Your task to perform on an android device: remove spam from my inbox in the gmail app Image 0: 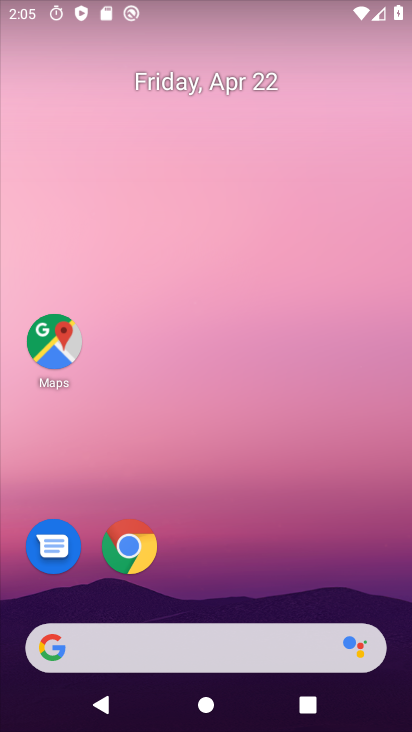
Step 0: click (298, 98)
Your task to perform on an android device: remove spam from my inbox in the gmail app Image 1: 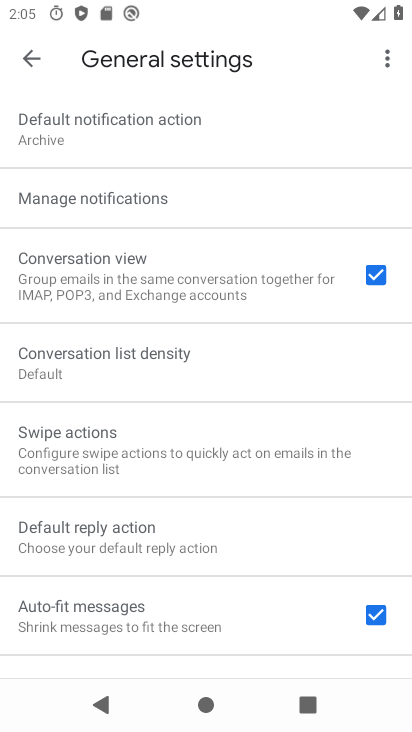
Step 1: click (33, 49)
Your task to perform on an android device: remove spam from my inbox in the gmail app Image 2: 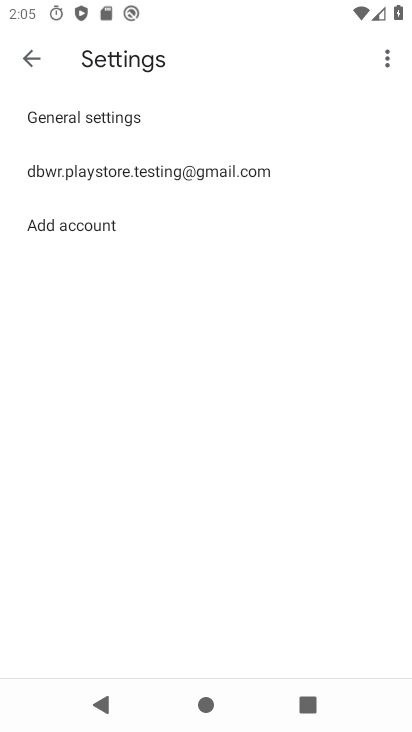
Step 2: click (31, 49)
Your task to perform on an android device: remove spam from my inbox in the gmail app Image 3: 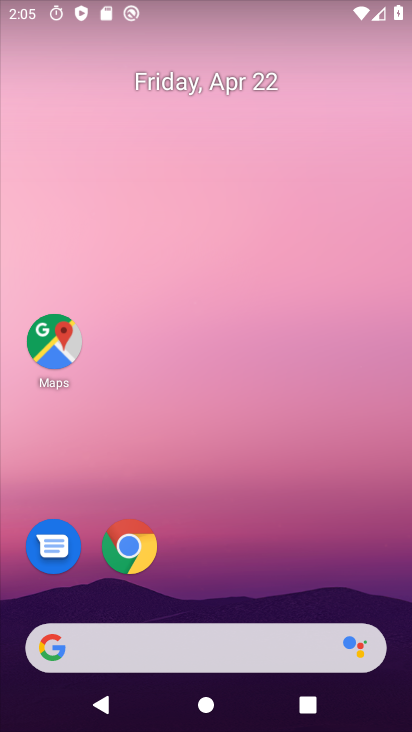
Step 3: drag from (191, 562) to (223, 51)
Your task to perform on an android device: remove spam from my inbox in the gmail app Image 4: 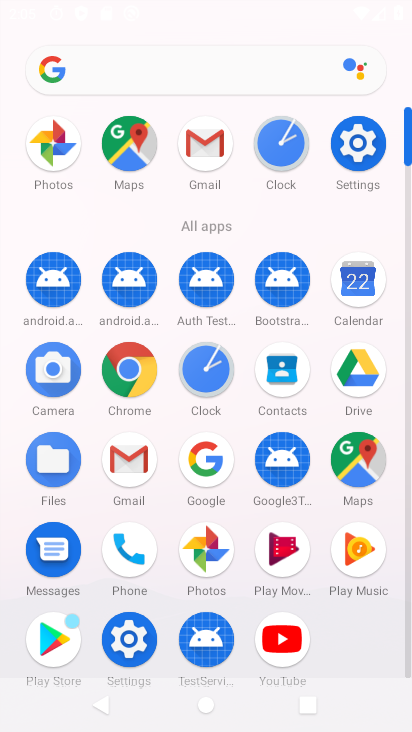
Step 4: click (120, 459)
Your task to perform on an android device: remove spam from my inbox in the gmail app Image 5: 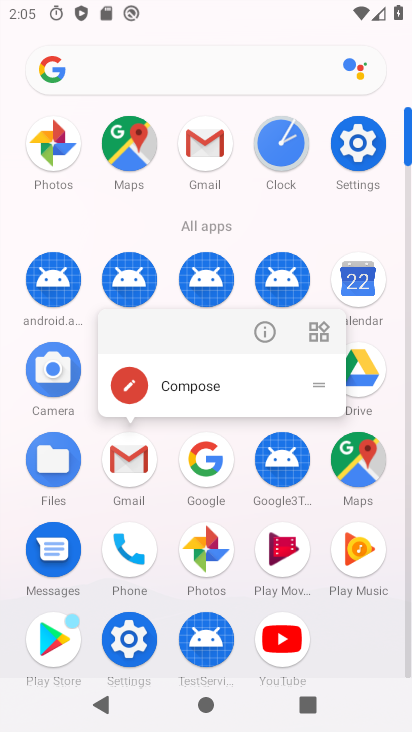
Step 5: click (257, 325)
Your task to perform on an android device: remove spam from my inbox in the gmail app Image 6: 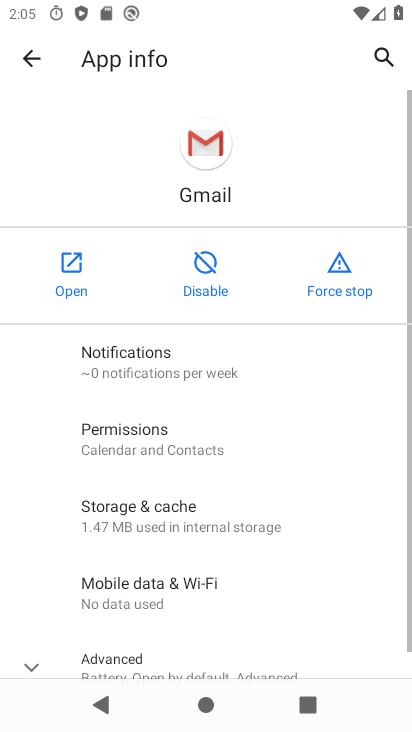
Step 6: click (69, 266)
Your task to perform on an android device: remove spam from my inbox in the gmail app Image 7: 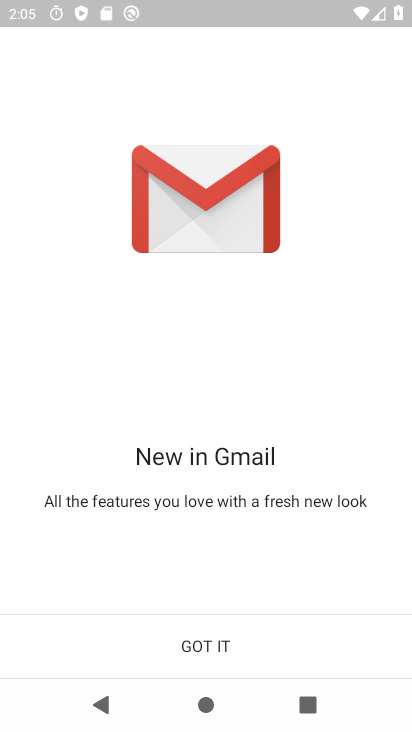
Step 7: click (203, 651)
Your task to perform on an android device: remove spam from my inbox in the gmail app Image 8: 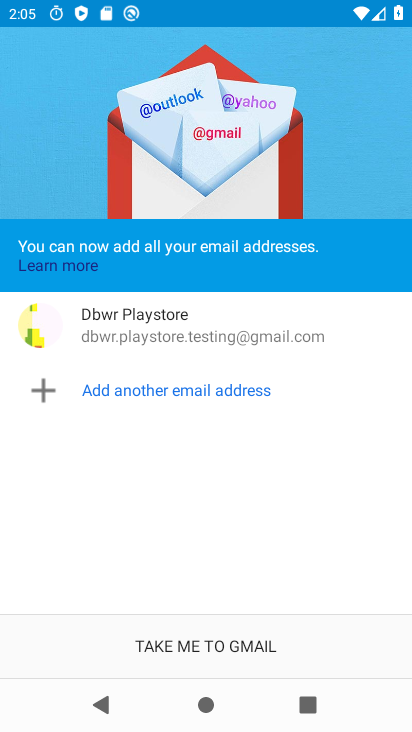
Step 8: click (190, 640)
Your task to perform on an android device: remove spam from my inbox in the gmail app Image 9: 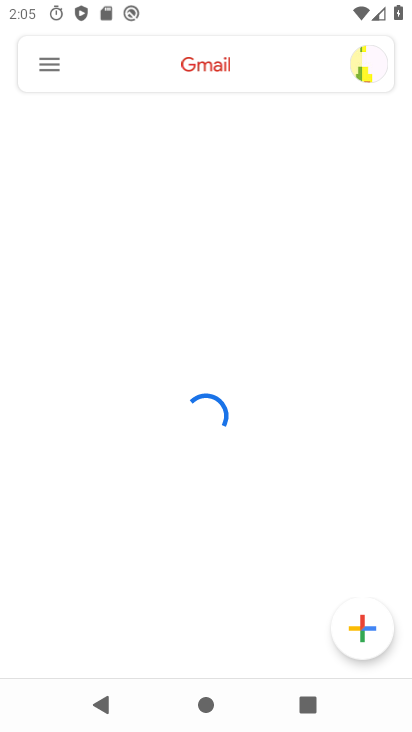
Step 9: click (31, 67)
Your task to perform on an android device: remove spam from my inbox in the gmail app Image 10: 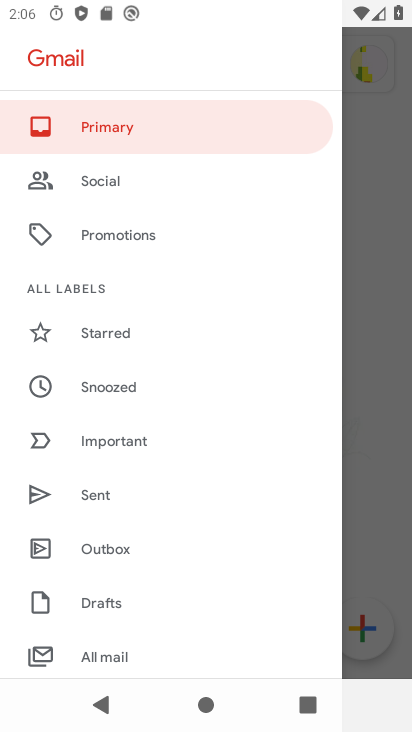
Step 10: drag from (143, 635) to (189, 336)
Your task to perform on an android device: remove spam from my inbox in the gmail app Image 11: 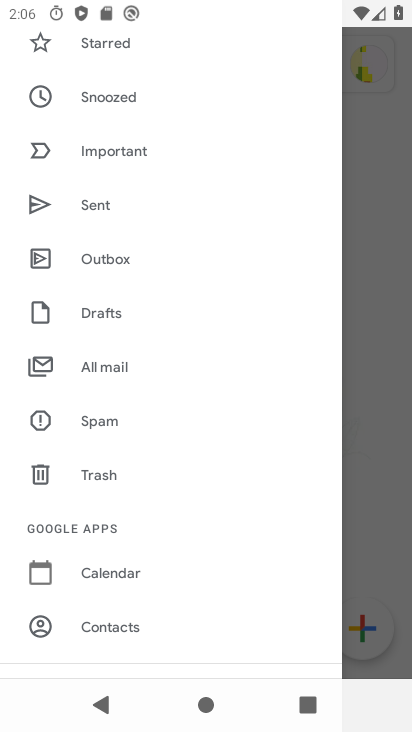
Step 11: click (119, 417)
Your task to perform on an android device: remove spam from my inbox in the gmail app Image 12: 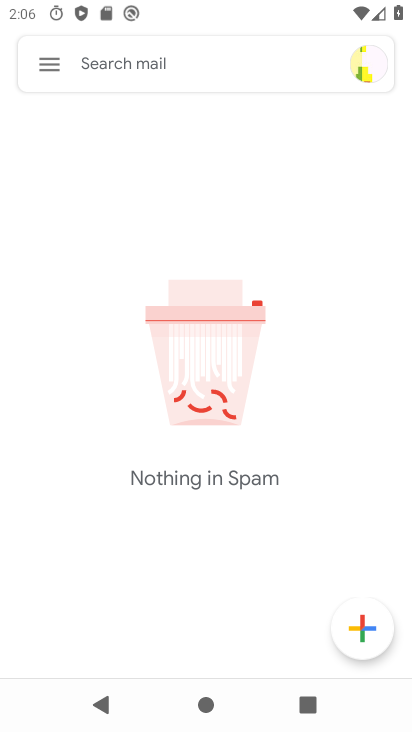
Step 12: task complete